Your task to perform on an android device: change the clock display to digital Image 0: 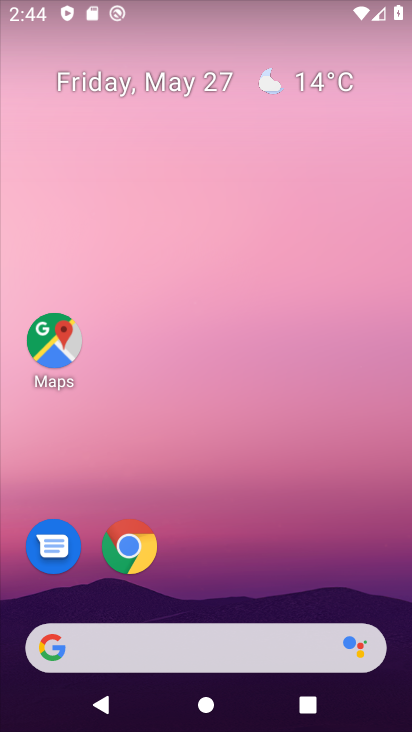
Step 0: drag from (202, 597) to (281, 211)
Your task to perform on an android device: change the clock display to digital Image 1: 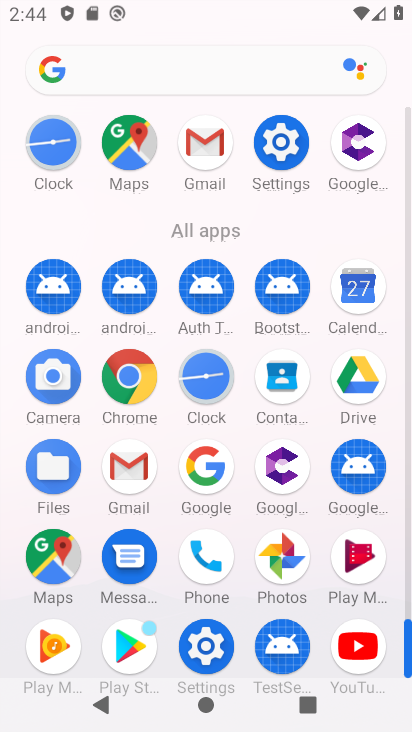
Step 1: drag from (164, 561) to (204, 393)
Your task to perform on an android device: change the clock display to digital Image 2: 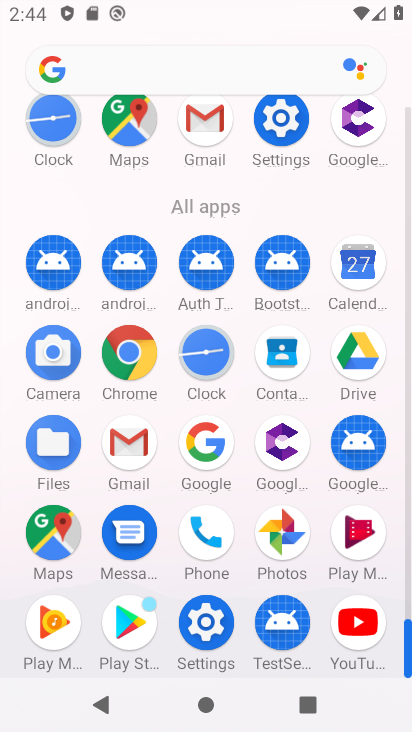
Step 2: click (209, 346)
Your task to perform on an android device: change the clock display to digital Image 3: 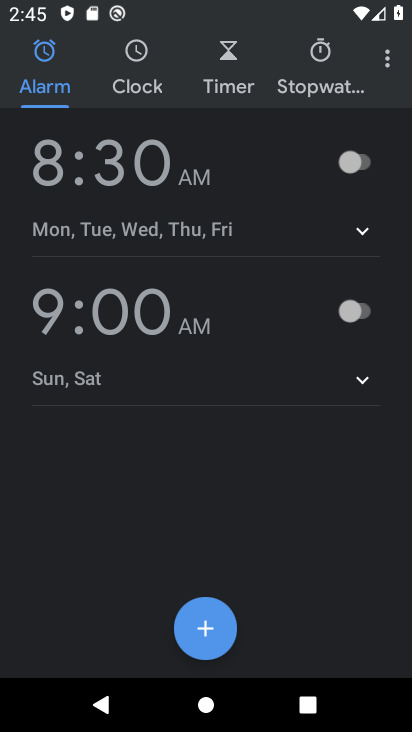
Step 3: click (386, 63)
Your task to perform on an android device: change the clock display to digital Image 4: 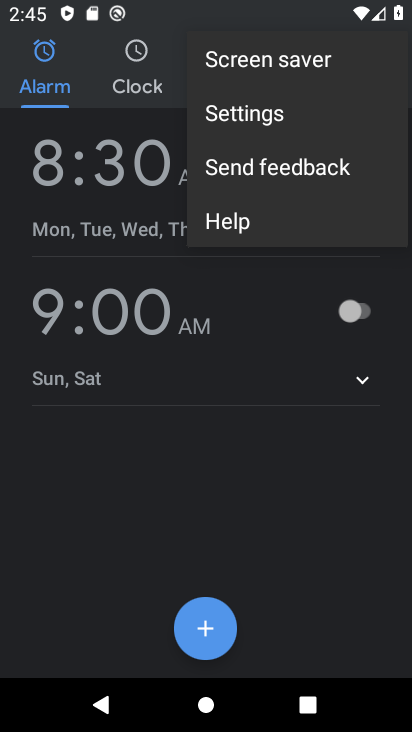
Step 4: click (338, 130)
Your task to perform on an android device: change the clock display to digital Image 5: 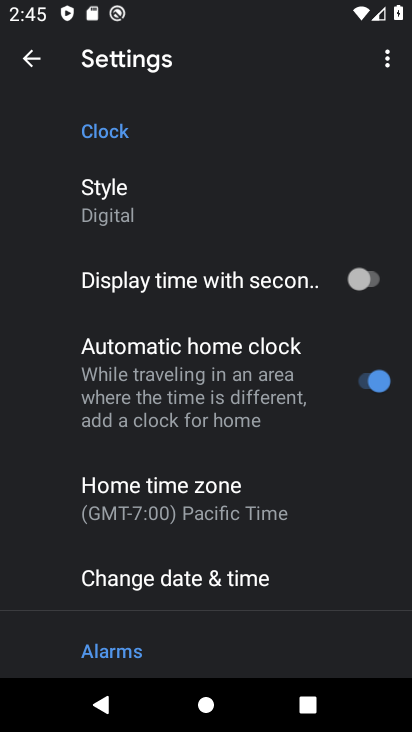
Step 5: task complete